Your task to perform on an android device: turn off smart reply in the gmail app Image 0: 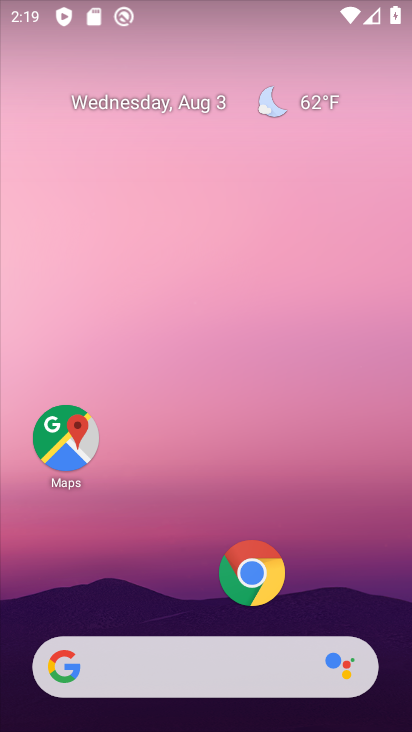
Step 0: drag from (155, 607) to (234, 5)
Your task to perform on an android device: turn off smart reply in the gmail app Image 1: 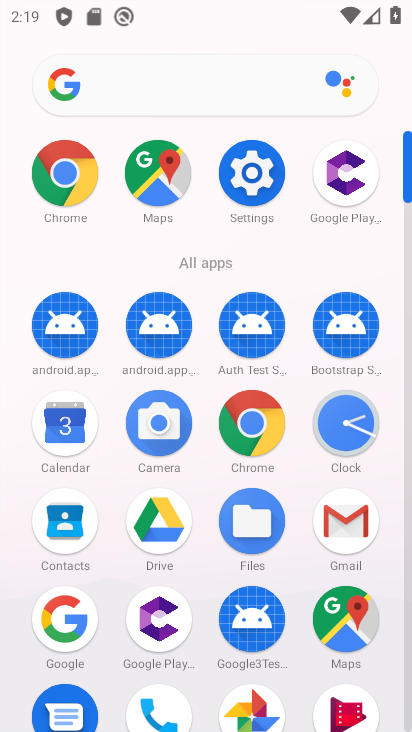
Step 1: click (358, 529)
Your task to perform on an android device: turn off smart reply in the gmail app Image 2: 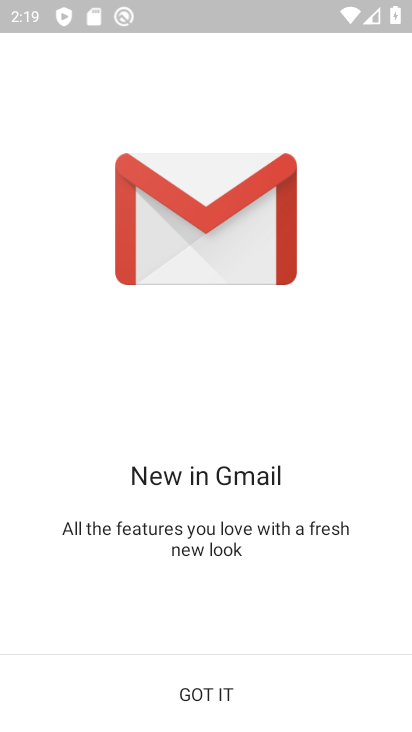
Step 2: click (285, 687)
Your task to perform on an android device: turn off smart reply in the gmail app Image 3: 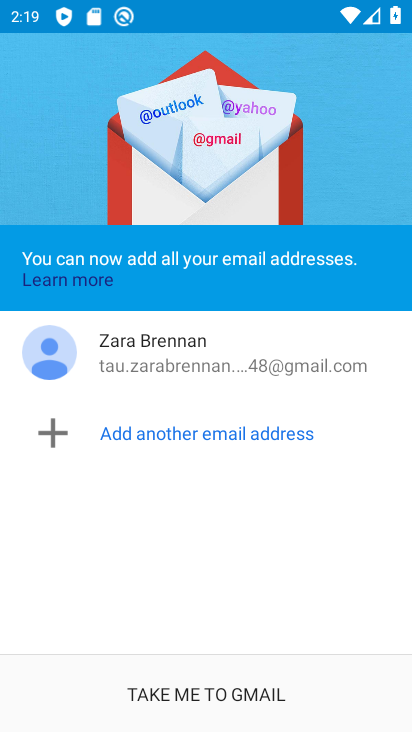
Step 3: click (261, 690)
Your task to perform on an android device: turn off smart reply in the gmail app Image 4: 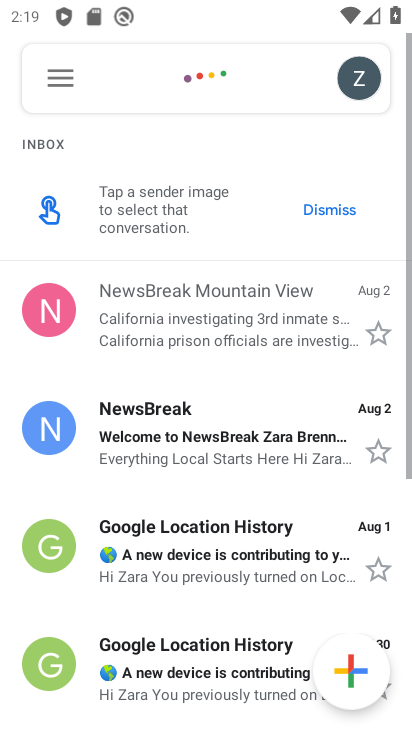
Step 4: click (54, 77)
Your task to perform on an android device: turn off smart reply in the gmail app Image 5: 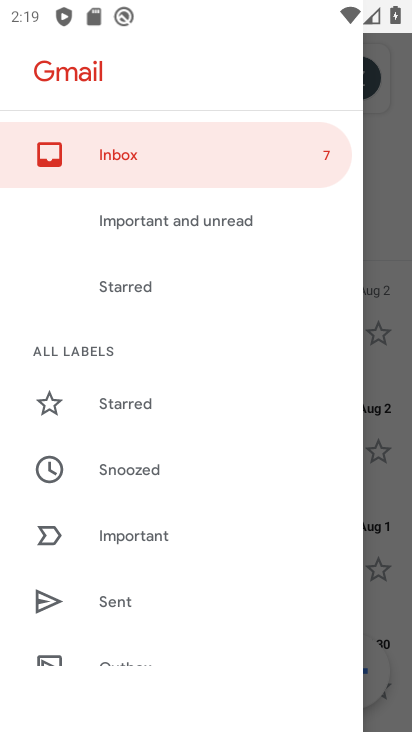
Step 5: drag from (122, 614) to (195, 111)
Your task to perform on an android device: turn off smart reply in the gmail app Image 6: 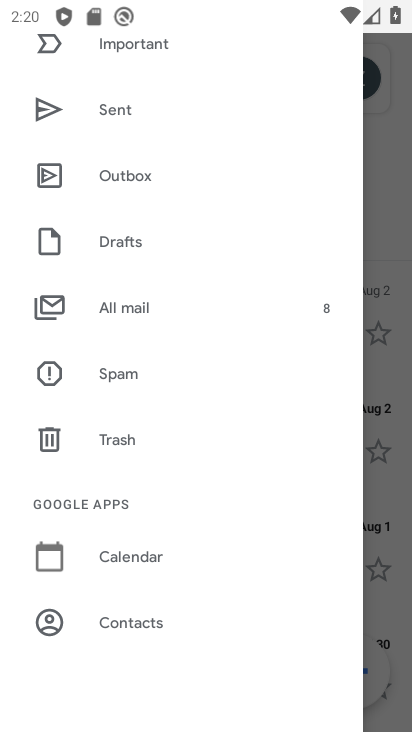
Step 6: drag from (178, 573) to (199, 166)
Your task to perform on an android device: turn off smart reply in the gmail app Image 7: 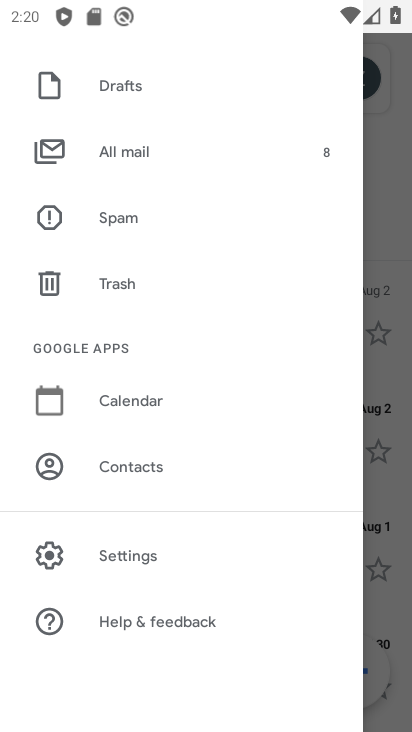
Step 7: click (139, 557)
Your task to perform on an android device: turn off smart reply in the gmail app Image 8: 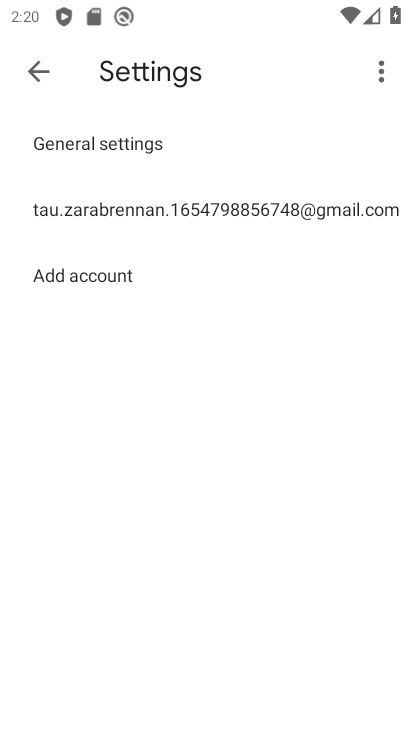
Step 8: click (127, 214)
Your task to perform on an android device: turn off smart reply in the gmail app Image 9: 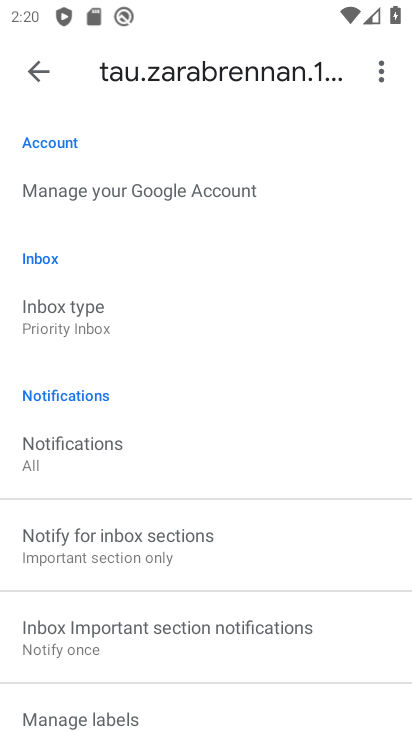
Step 9: drag from (129, 553) to (146, 143)
Your task to perform on an android device: turn off smart reply in the gmail app Image 10: 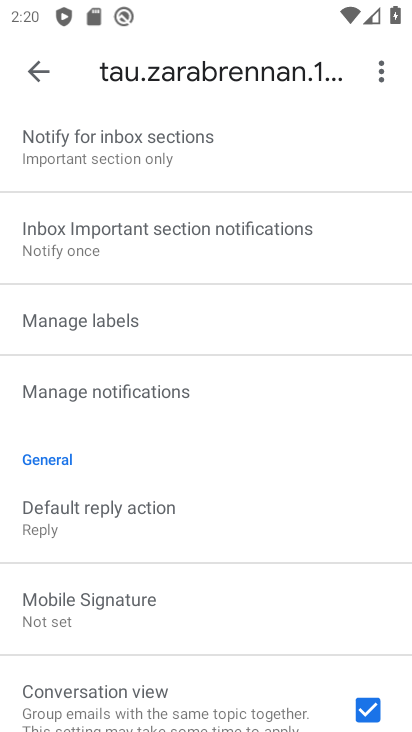
Step 10: drag from (198, 606) to (228, 288)
Your task to perform on an android device: turn off smart reply in the gmail app Image 11: 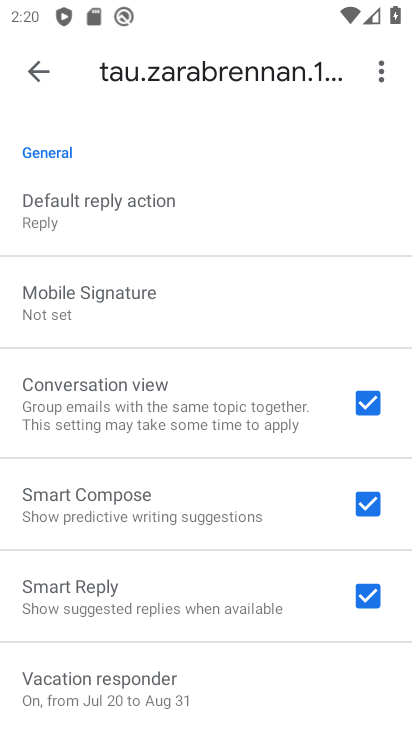
Step 11: click (355, 602)
Your task to perform on an android device: turn off smart reply in the gmail app Image 12: 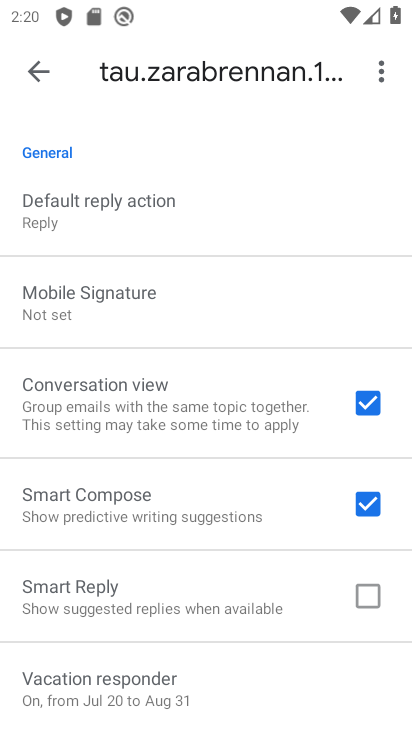
Step 12: task complete